Your task to perform on an android device: Open maps Image 0: 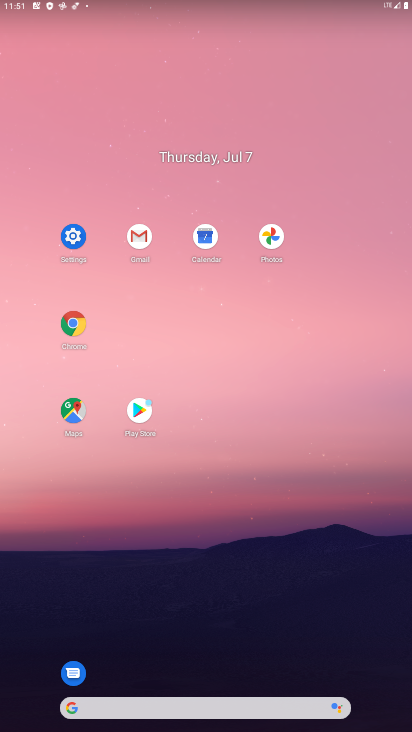
Step 0: click (77, 410)
Your task to perform on an android device: Open maps Image 1: 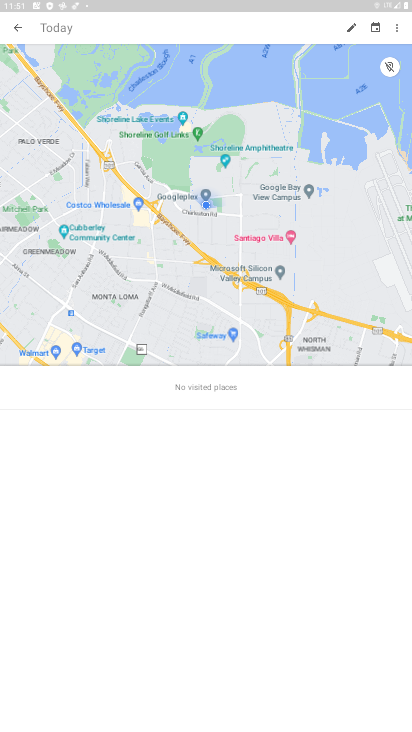
Step 1: task complete